Your task to perform on an android device: Go to Wikipedia Image 0: 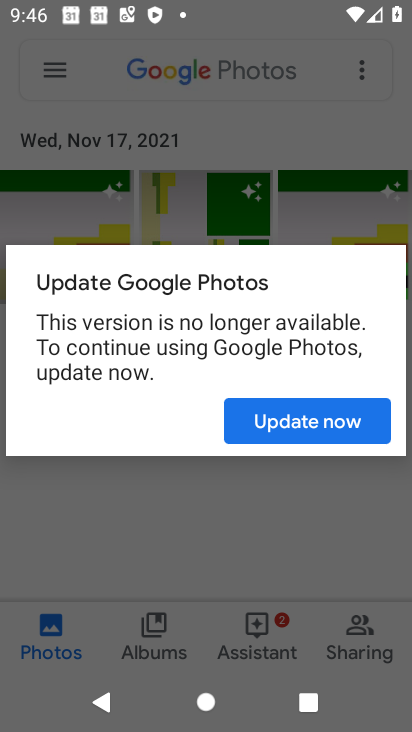
Step 0: press home button
Your task to perform on an android device: Go to Wikipedia Image 1: 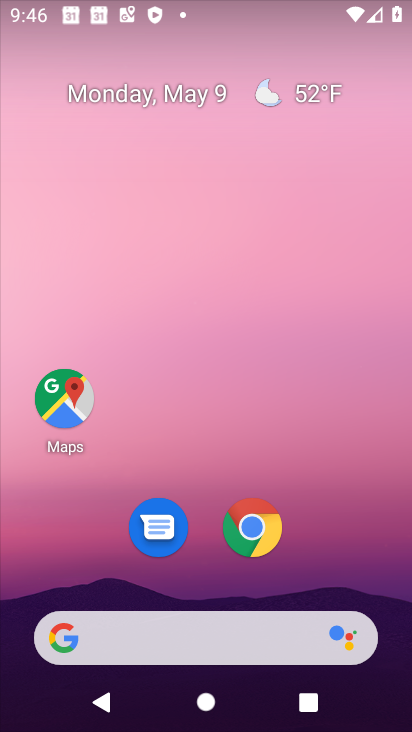
Step 1: click (255, 529)
Your task to perform on an android device: Go to Wikipedia Image 2: 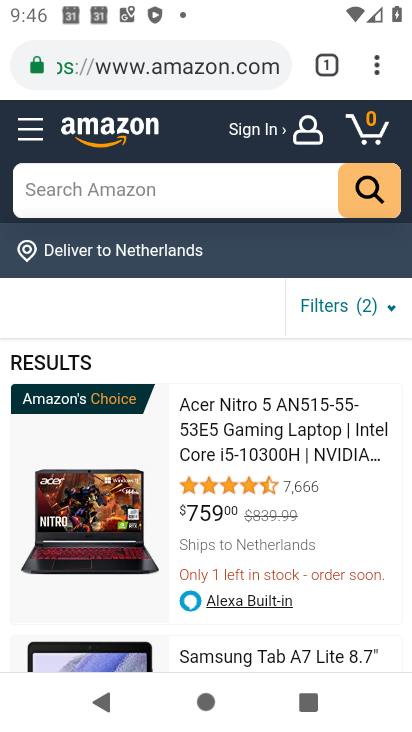
Step 2: press back button
Your task to perform on an android device: Go to Wikipedia Image 3: 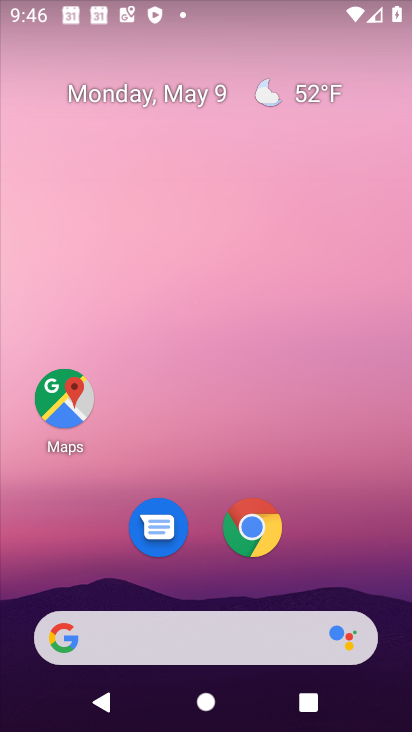
Step 3: click (256, 523)
Your task to perform on an android device: Go to Wikipedia Image 4: 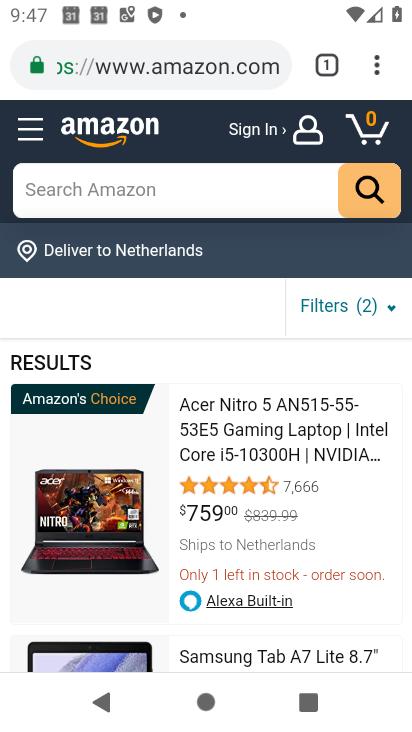
Step 4: click (243, 76)
Your task to perform on an android device: Go to Wikipedia Image 5: 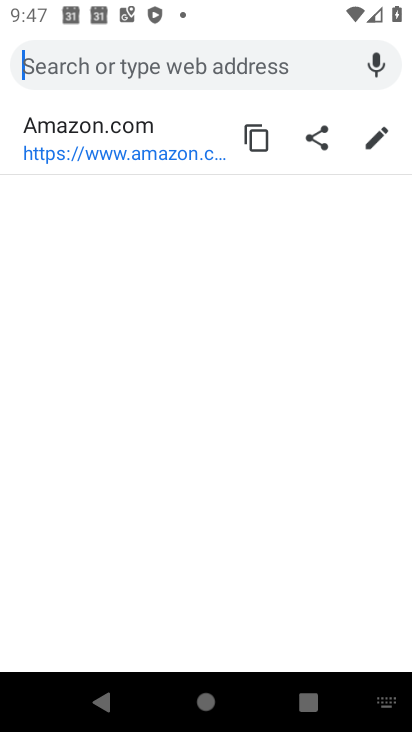
Step 5: type "wikkipedia"
Your task to perform on an android device: Go to Wikipedia Image 6: 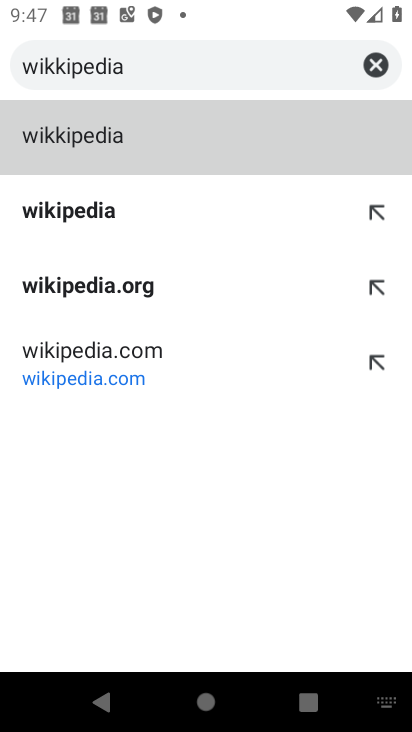
Step 6: click (130, 379)
Your task to perform on an android device: Go to Wikipedia Image 7: 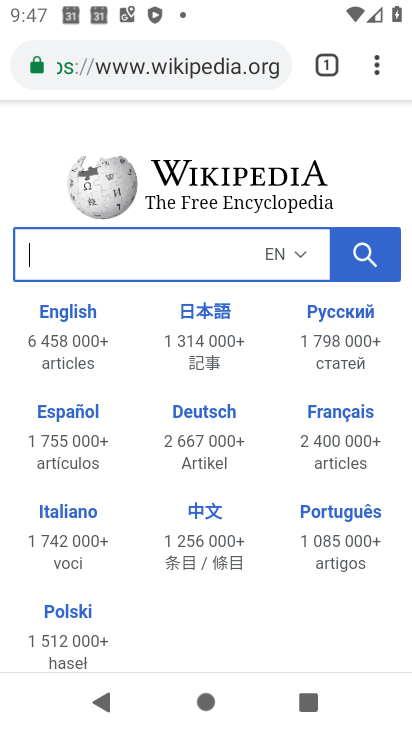
Step 7: task complete